Your task to perform on an android device: open chrome and create a bookmark for the current page Image 0: 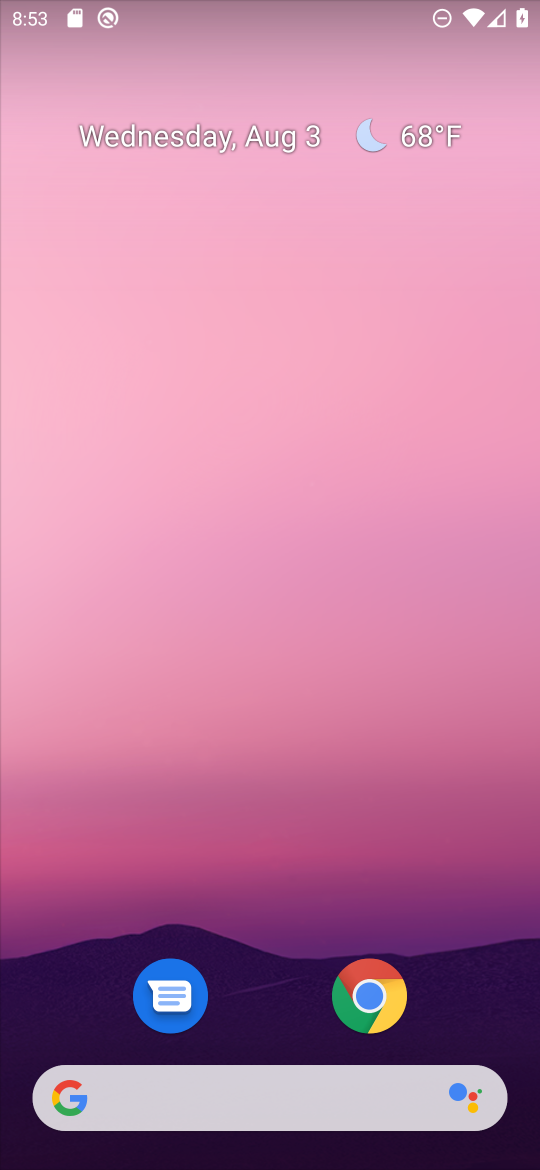
Step 0: click (372, 991)
Your task to perform on an android device: open chrome and create a bookmark for the current page Image 1: 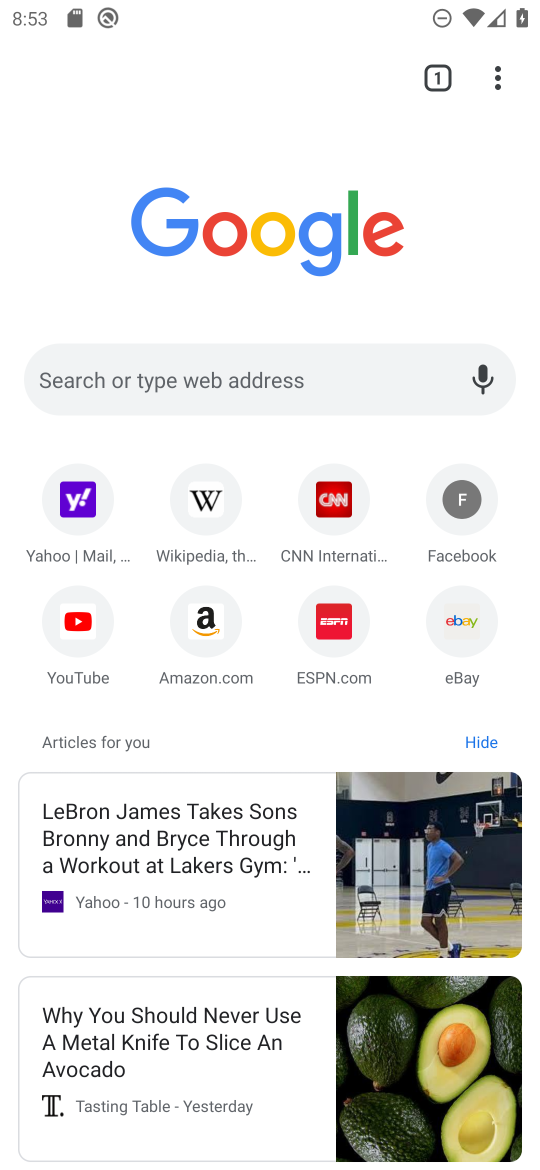
Step 1: click (503, 71)
Your task to perform on an android device: open chrome and create a bookmark for the current page Image 2: 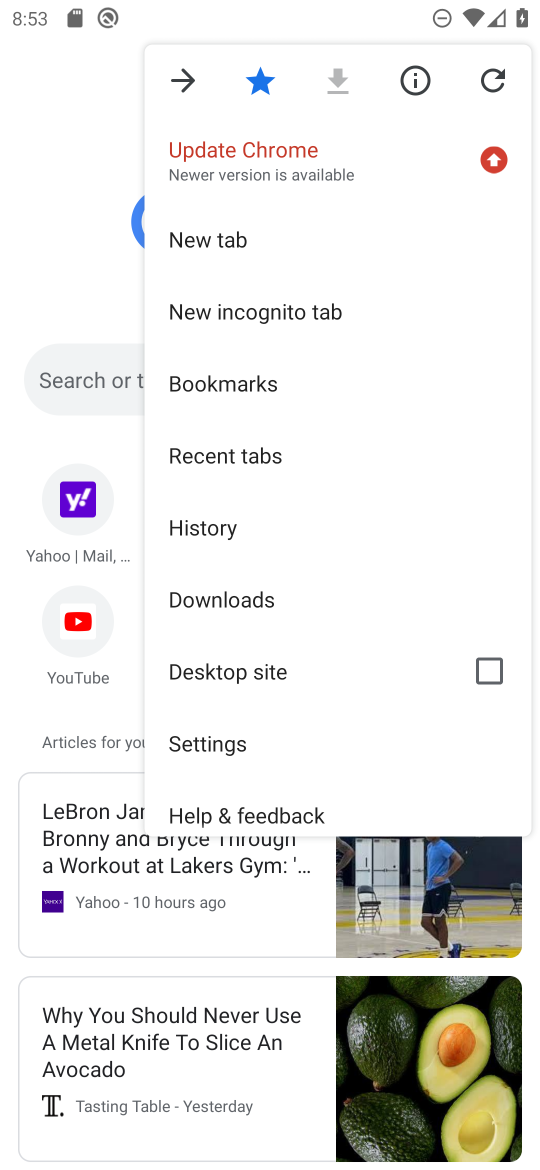
Step 2: task complete